Your task to perform on an android device: Empty the shopping cart on walmart.com. Search for "logitech g903" on walmart.com, select the first entry, and add it to the cart. Image 0: 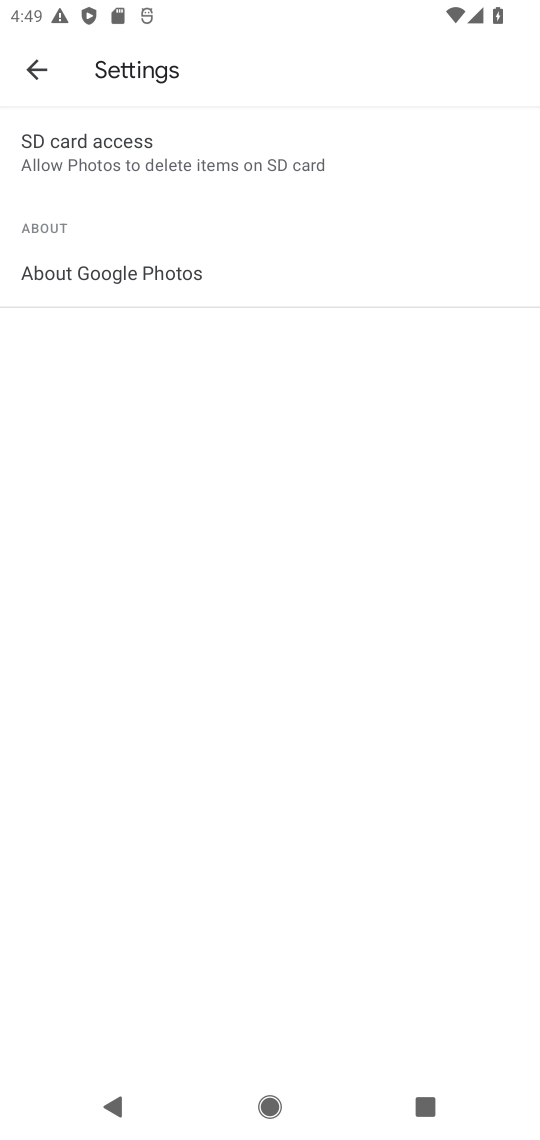
Step 0: press home button
Your task to perform on an android device: Empty the shopping cart on walmart.com. Search for "logitech g903" on walmart.com, select the first entry, and add it to the cart. Image 1: 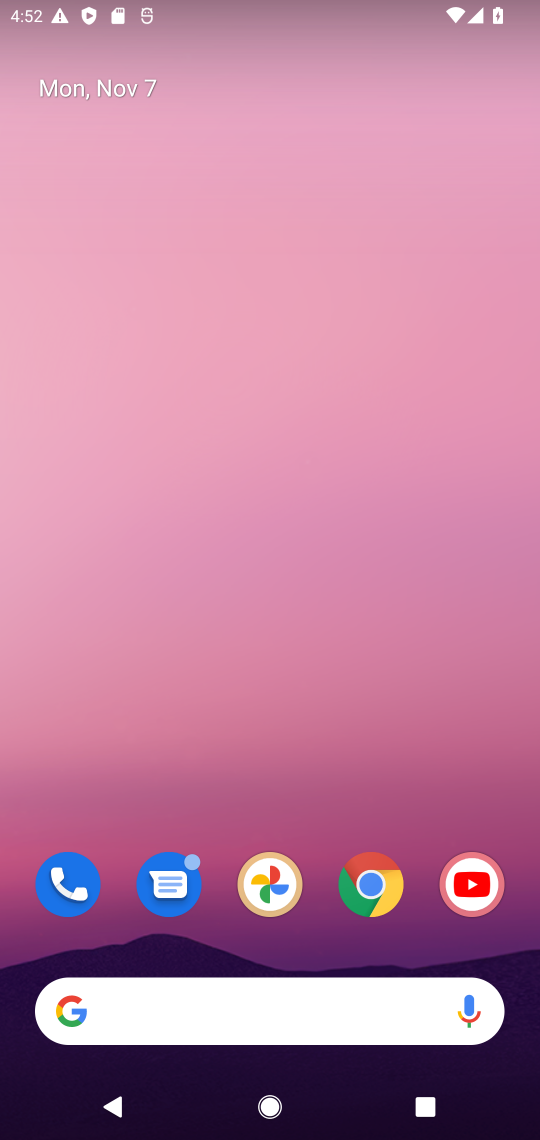
Step 1: drag from (340, 763) to (295, 44)
Your task to perform on an android device: Empty the shopping cart on walmart.com. Search for "logitech g903" on walmart.com, select the first entry, and add it to the cart. Image 2: 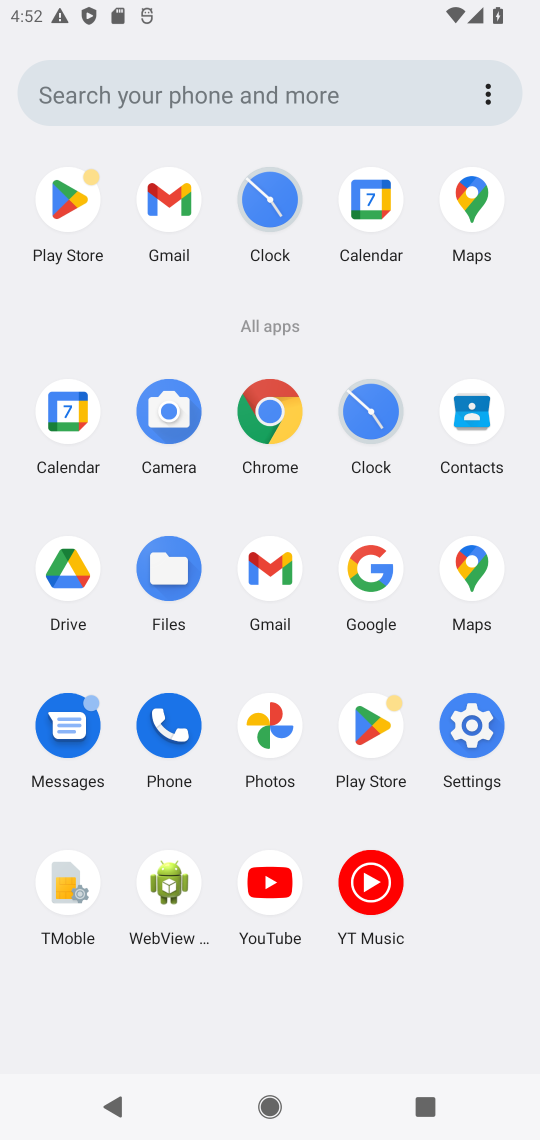
Step 2: click (263, 407)
Your task to perform on an android device: Empty the shopping cart on walmart.com. Search for "logitech g903" on walmart.com, select the first entry, and add it to the cart. Image 3: 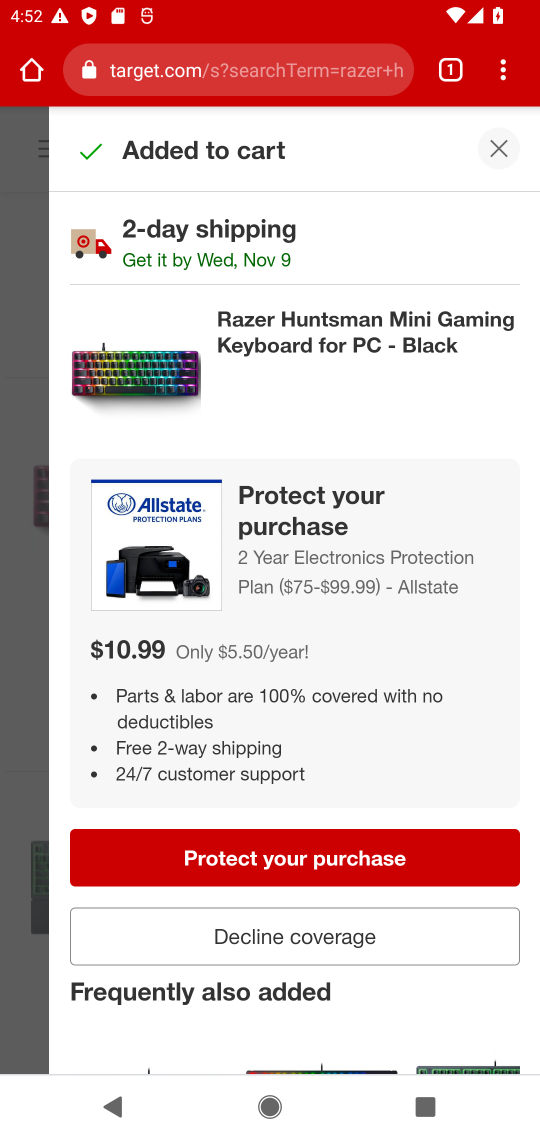
Step 3: click (325, 63)
Your task to perform on an android device: Empty the shopping cart on walmart.com. Search for "logitech g903" on walmart.com, select the first entry, and add it to the cart. Image 4: 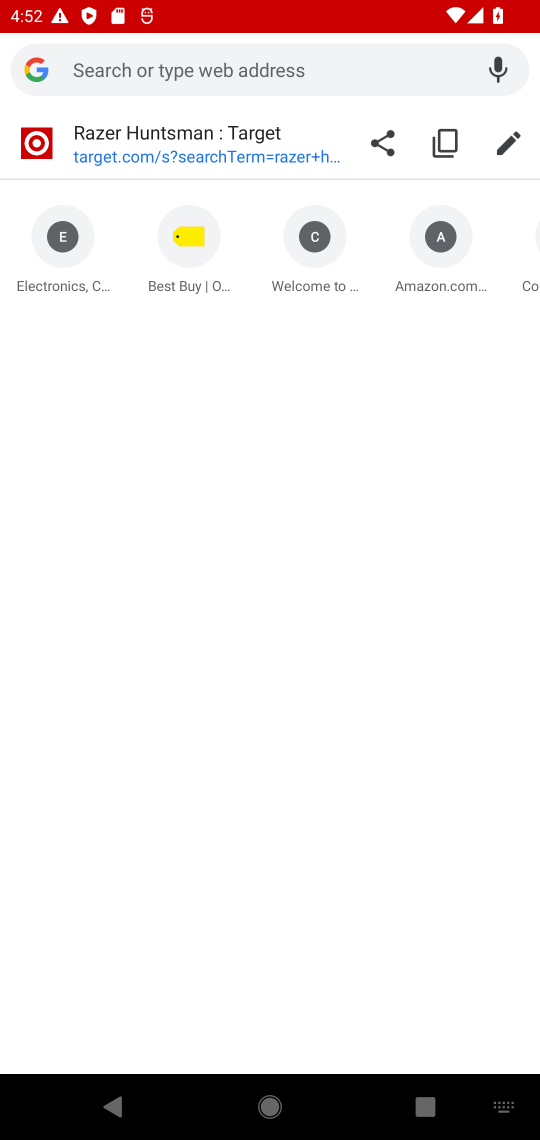
Step 4: type "walmart.com"
Your task to perform on an android device: Empty the shopping cart on walmart.com. Search for "logitech g903" on walmart.com, select the first entry, and add it to the cart. Image 5: 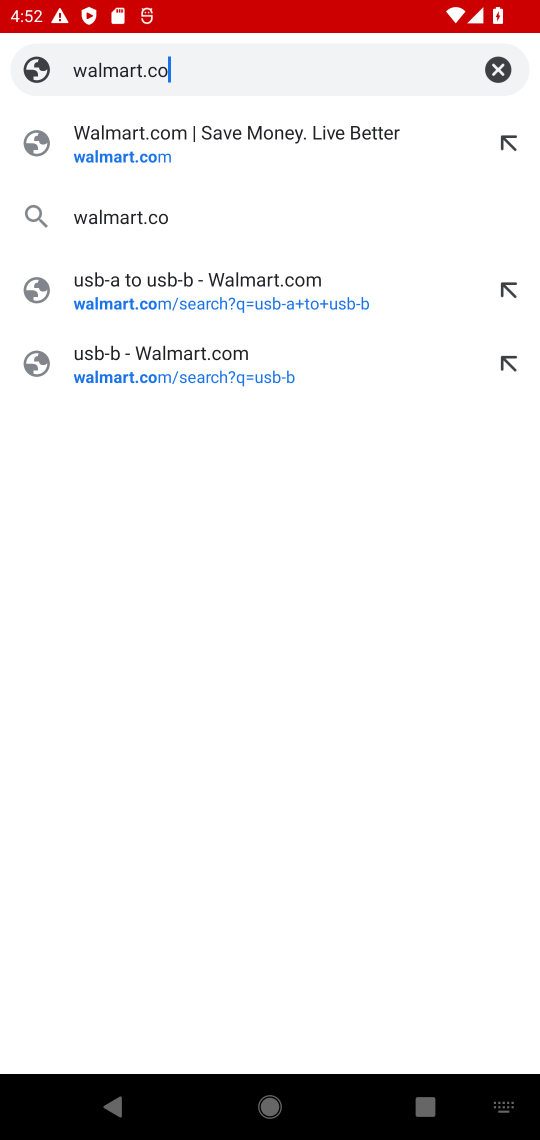
Step 5: press enter
Your task to perform on an android device: Empty the shopping cart on walmart.com. Search for "logitech g903" on walmart.com, select the first entry, and add it to the cart. Image 6: 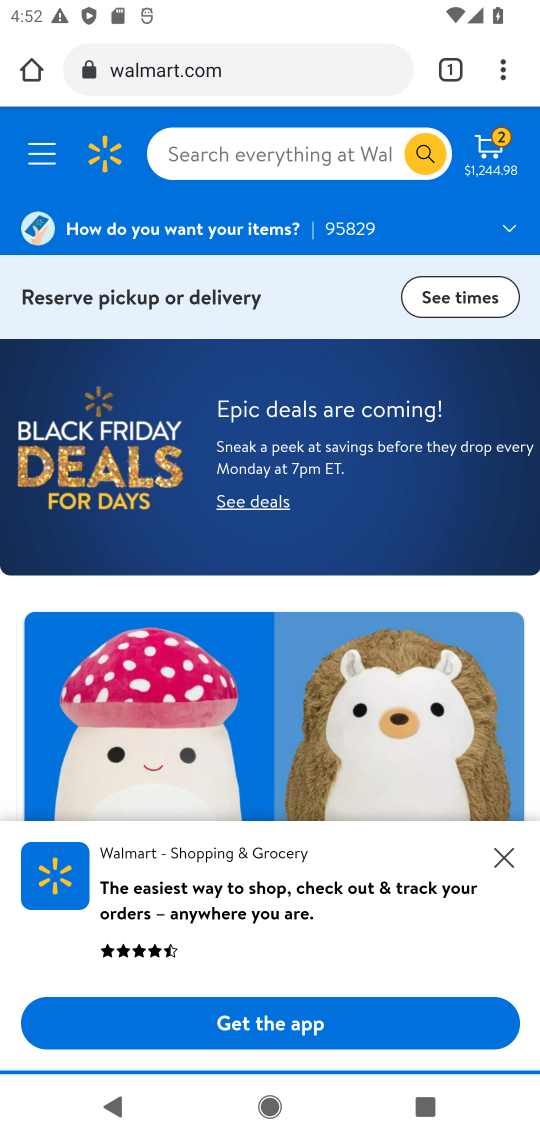
Step 6: click (483, 162)
Your task to perform on an android device: Empty the shopping cart on walmart.com. Search for "logitech g903" on walmart.com, select the first entry, and add it to the cart. Image 7: 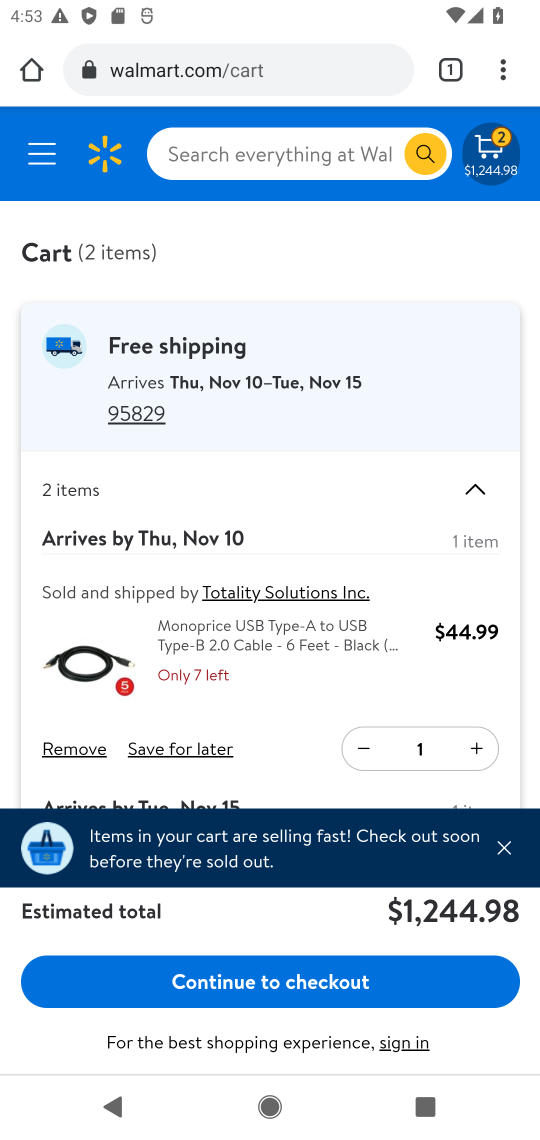
Step 7: click (93, 751)
Your task to perform on an android device: Empty the shopping cart on walmart.com. Search for "logitech g903" on walmart.com, select the first entry, and add it to the cart. Image 8: 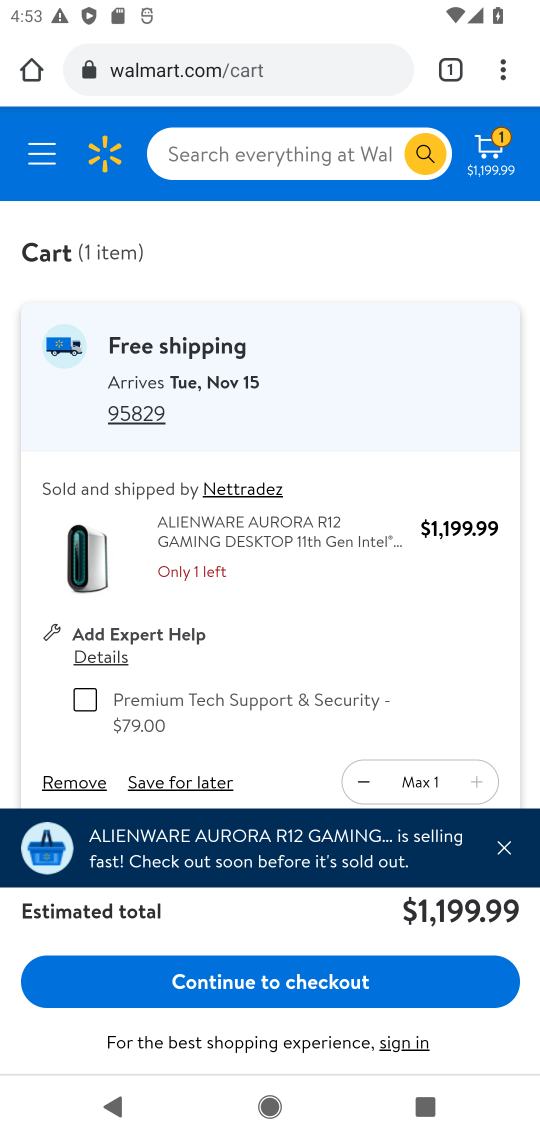
Step 8: click (80, 777)
Your task to perform on an android device: Empty the shopping cart on walmart.com. Search for "logitech g903" on walmart.com, select the first entry, and add it to the cart. Image 9: 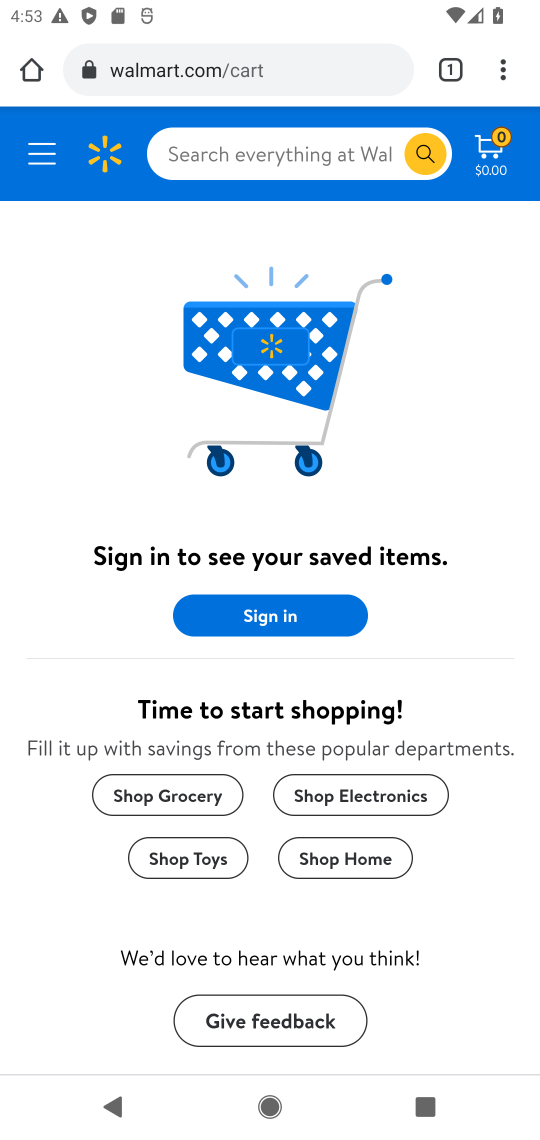
Step 9: click (284, 153)
Your task to perform on an android device: Empty the shopping cart on walmart.com. Search for "logitech g903" on walmart.com, select the first entry, and add it to the cart. Image 10: 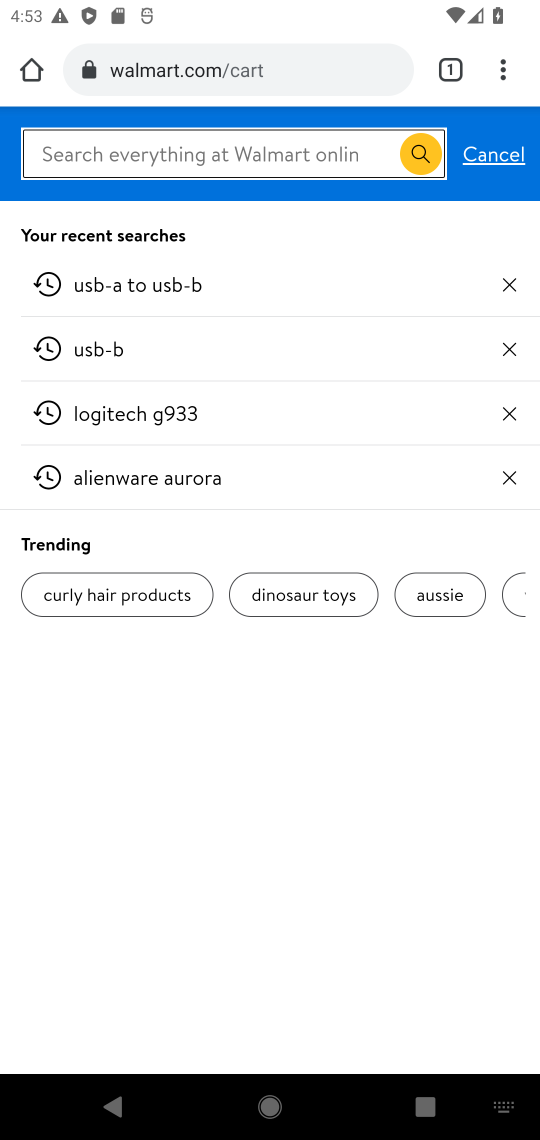
Step 10: type "logitech g903"
Your task to perform on an android device: Empty the shopping cart on walmart.com. Search for "logitech g903" on walmart.com, select the first entry, and add it to the cart. Image 11: 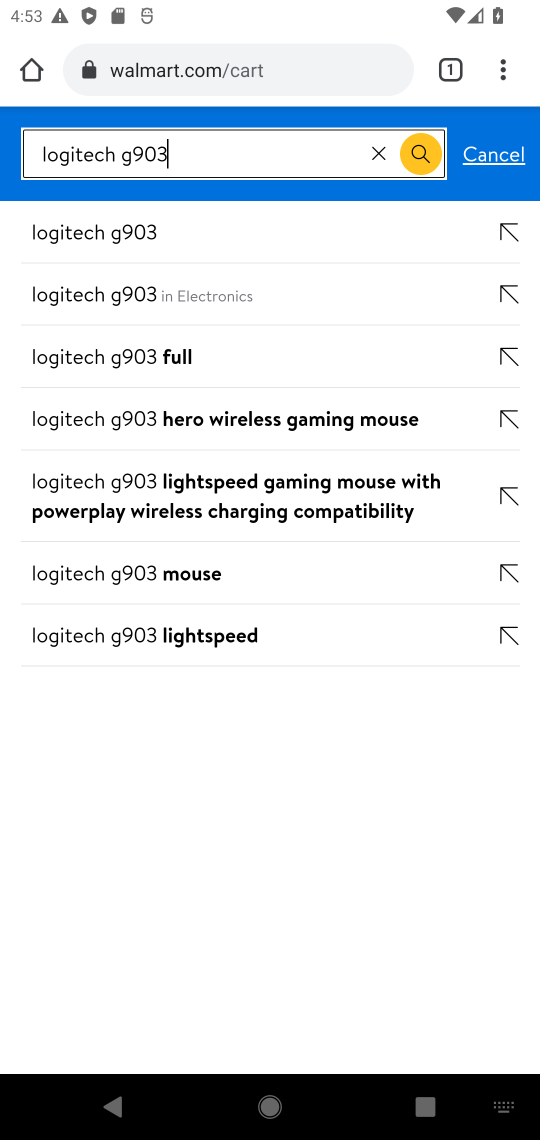
Step 11: press enter
Your task to perform on an android device: Empty the shopping cart on walmart.com. Search for "logitech g903" on walmart.com, select the first entry, and add it to the cart. Image 12: 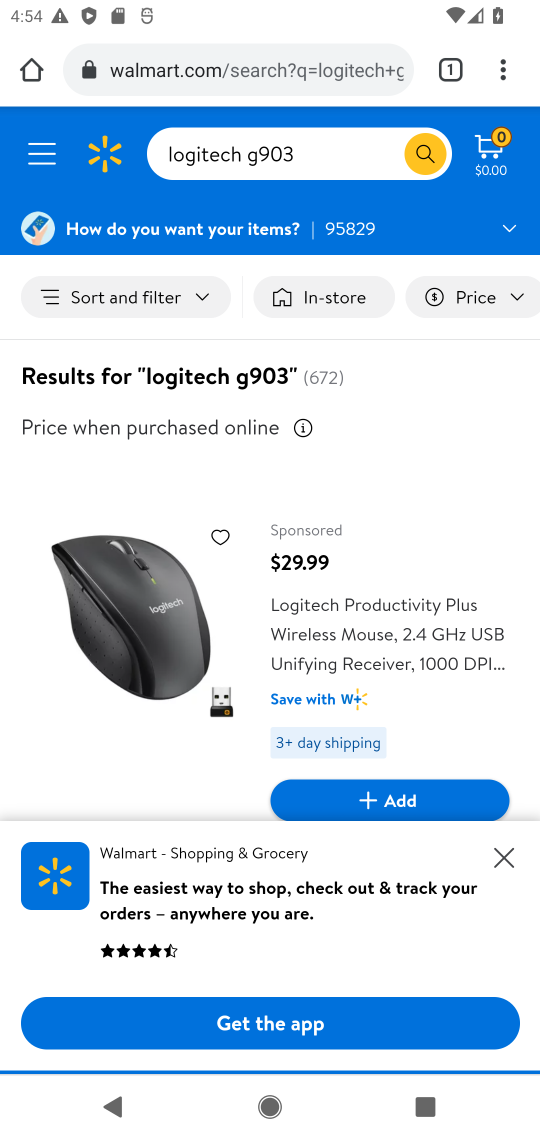
Step 12: drag from (304, 697) to (309, 84)
Your task to perform on an android device: Empty the shopping cart on walmart.com. Search for "logitech g903" on walmart.com, select the first entry, and add it to the cart. Image 13: 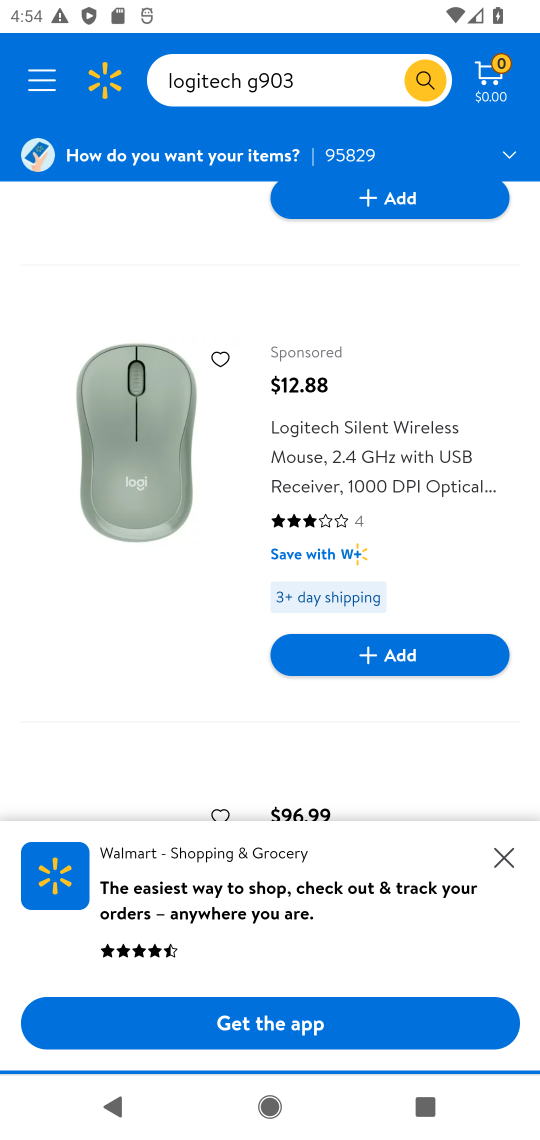
Step 13: drag from (197, 631) to (222, 0)
Your task to perform on an android device: Empty the shopping cart on walmart.com. Search for "logitech g903" on walmart.com, select the first entry, and add it to the cart. Image 14: 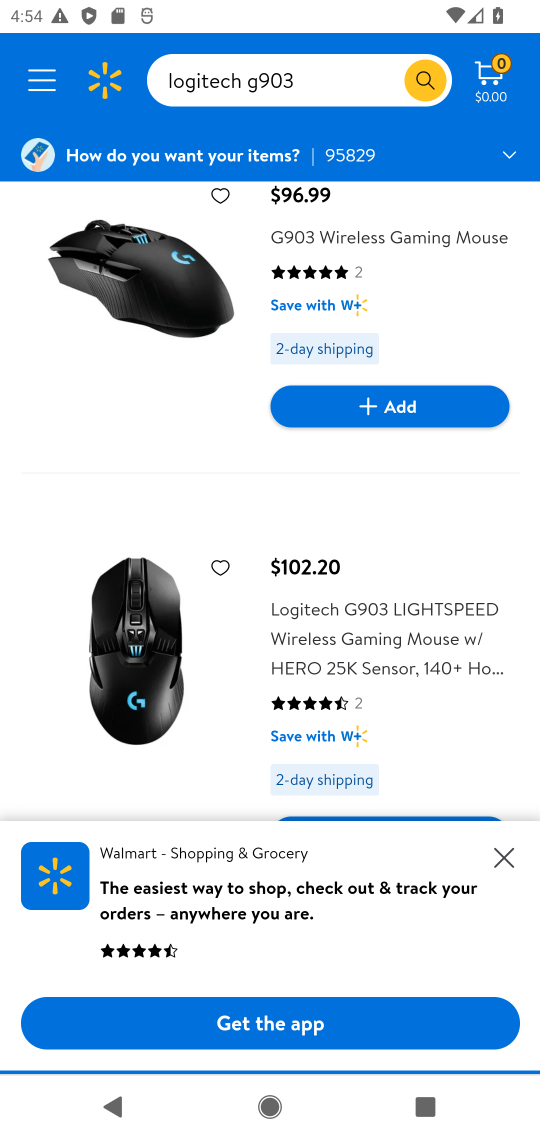
Step 14: drag from (256, 217) to (346, 336)
Your task to perform on an android device: Empty the shopping cart on walmart.com. Search for "logitech g903" on walmart.com, select the first entry, and add it to the cart. Image 15: 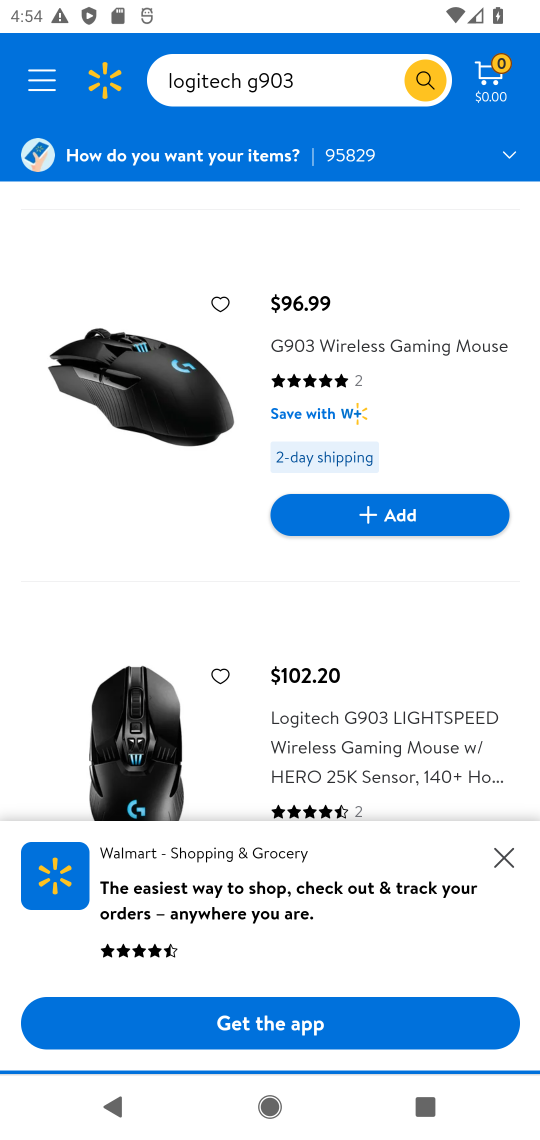
Step 15: click (399, 519)
Your task to perform on an android device: Empty the shopping cart on walmart.com. Search for "logitech g903" on walmart.com, select the first entry, and add it to the cart. Image 16: 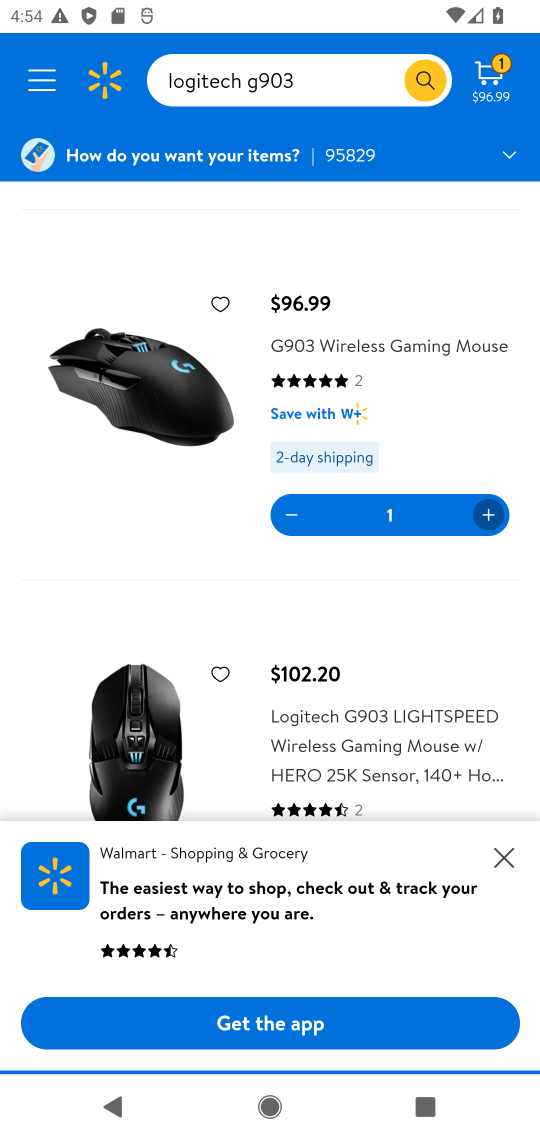
Step 16: task complete